Your task to perform on an android device: turn off priority inbox in the gmail app Image 0: 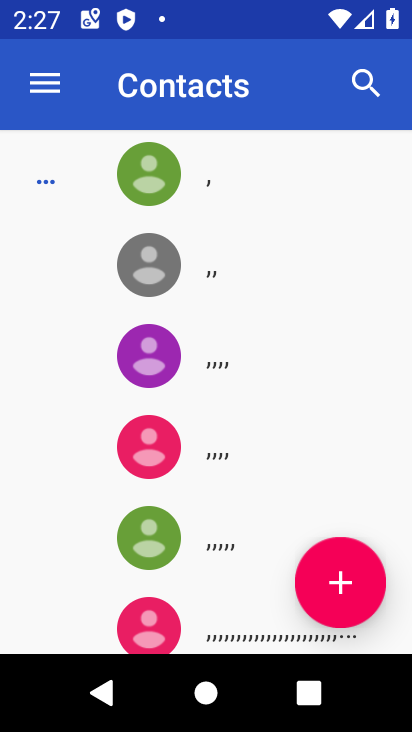
Step 0: press back button
Your task to perform on an android device: turn off priority inbox in the gmail app Image 1: 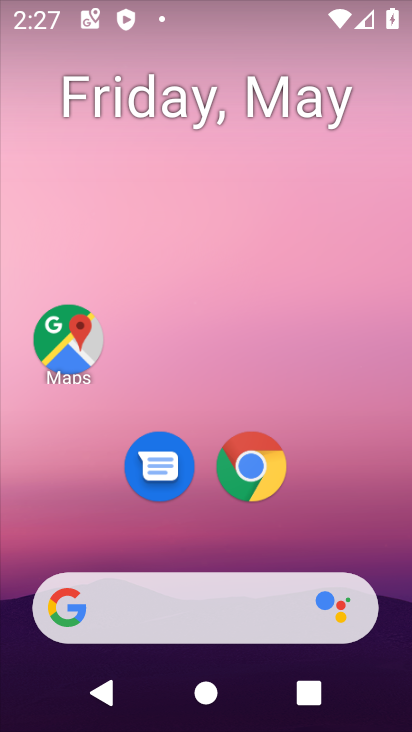
Step 1: drag from (228, 548) to (278, 149)
Your task to perform on an android device: turn off priority inbox in the gmail app Image 2: 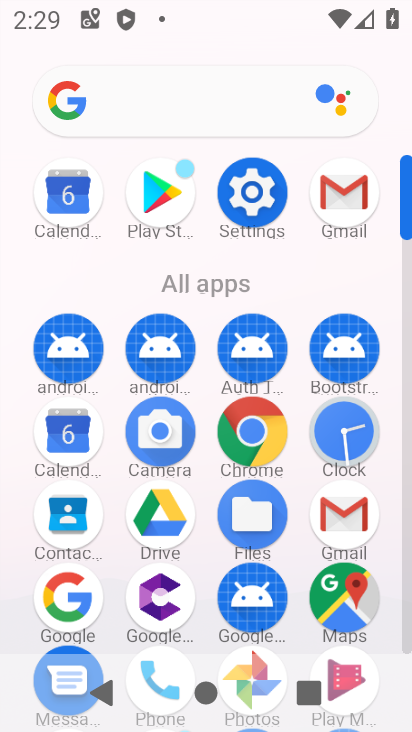
Step 2: click (351, 210)
Your task to perform on an android device: turn off priority inbox in the gmail app Image 3: 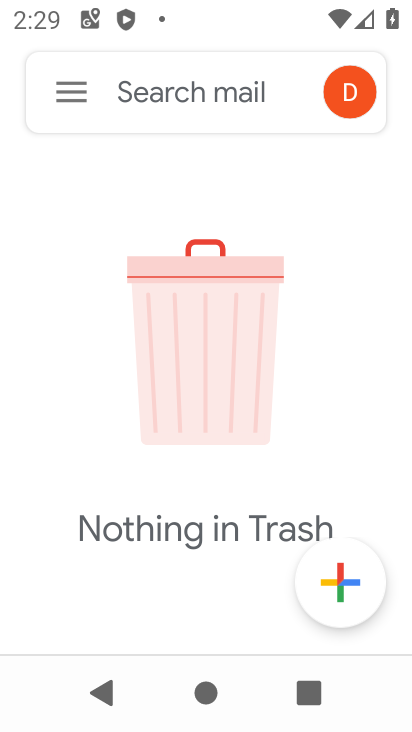
Step 3: click (73, 97)
Your task to perform on an android device: turn off priority inbox in the gmail app Image 4: 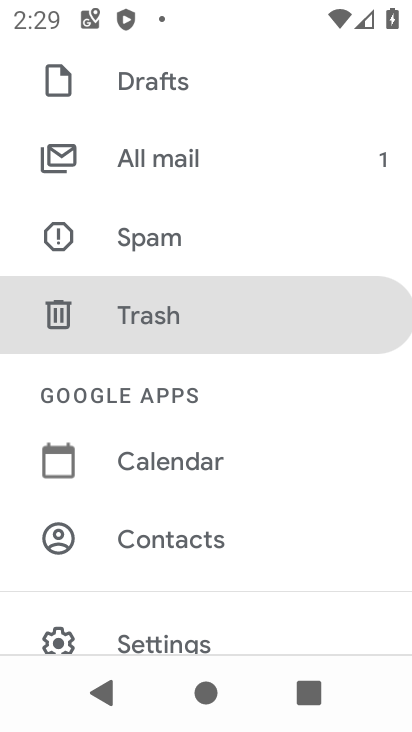
Step 4: drag from (191, 594) to (333, 43)
Your task to perform on an android device: turn off priority inbox in the gmail app Image 5: 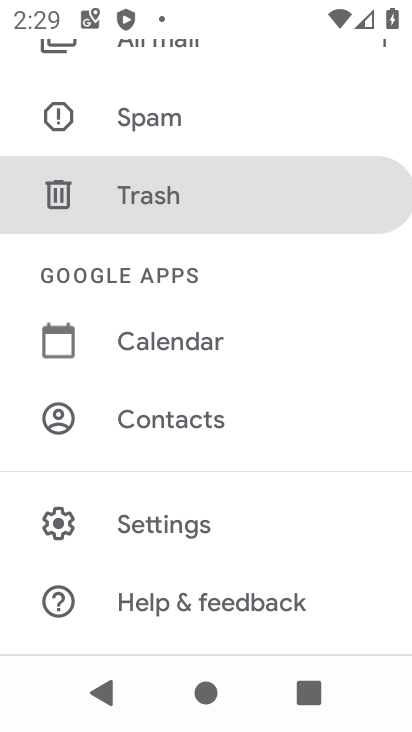
Step 5: click (176, 524)
Your task to perform on an android device: turn off priority inbox in the gmail app Image 6: 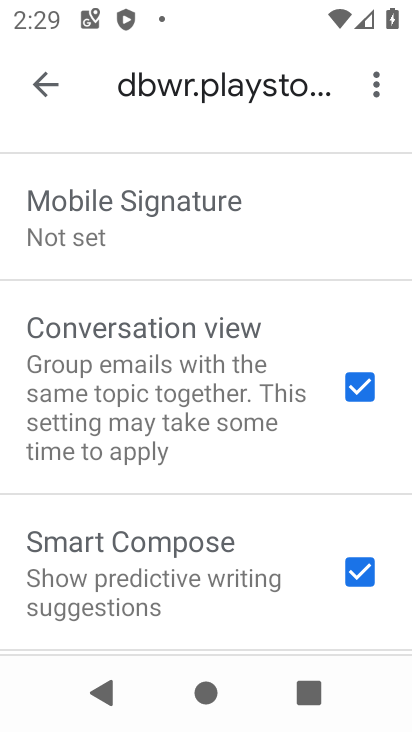
Step 6: drag from (199, 211) to (155, 651)
Your task to perform on an android device: turn off priority inbox in the gmail app Image 7: 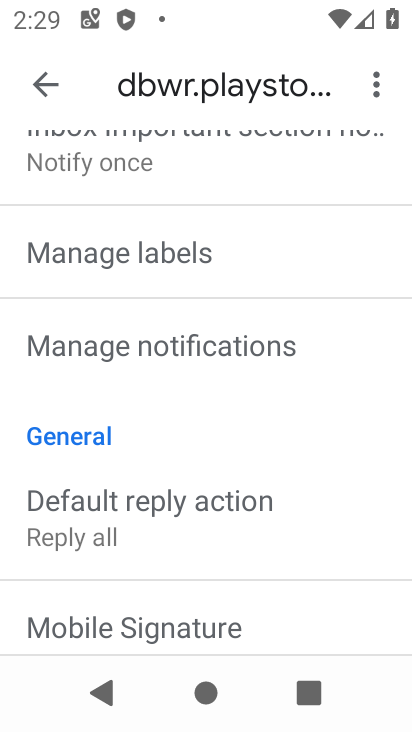
Step 7: drag from (207, 230) to (139, 634)
Your task to perform on an android device: turn off priority inbox in the gmail app Image 8: 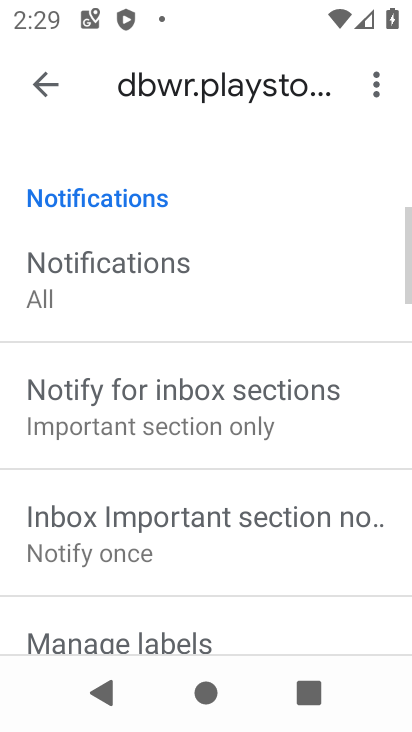
Step 8: drag from (200, 257) to (139, 715)
Your task to perform on an android device: turn off priority inbox in the gmail app Image 9: 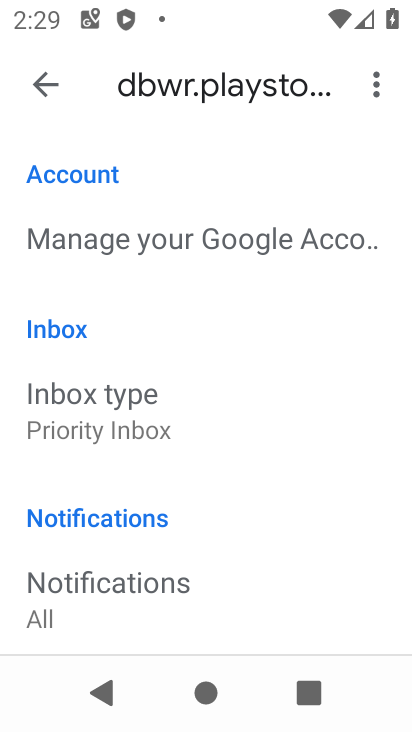
Step 9: click (129, 433)
Your task to perform on an android device: turn off priority inbox in the gmail app Image 10: 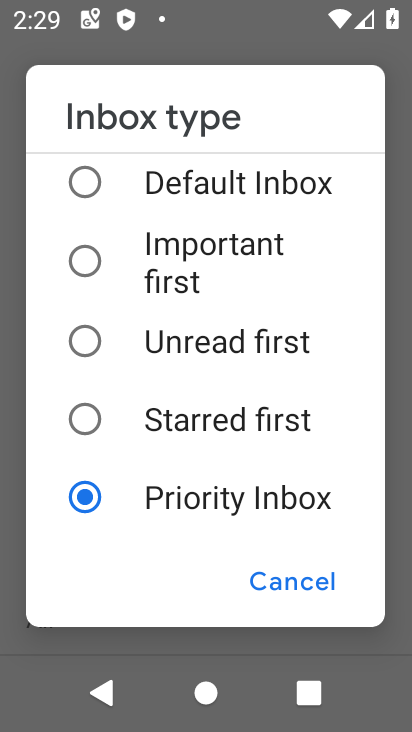
Step 10: click (91, 181)
Your task to perform on an android device: turn off priority inbox in the gmail app Image 11: 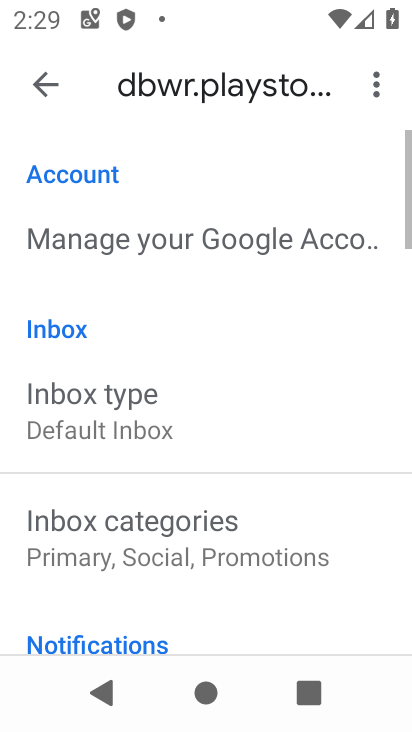
Step 11: task complete